Your task to perform on an android device: turn off notifications in google photos Image 0: 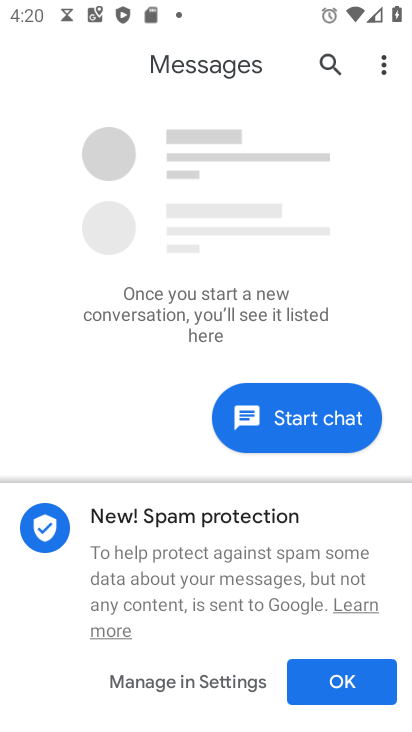
Step 0: press home button
Your task to perform on an android device: turn off notifications in google photos Image 1: 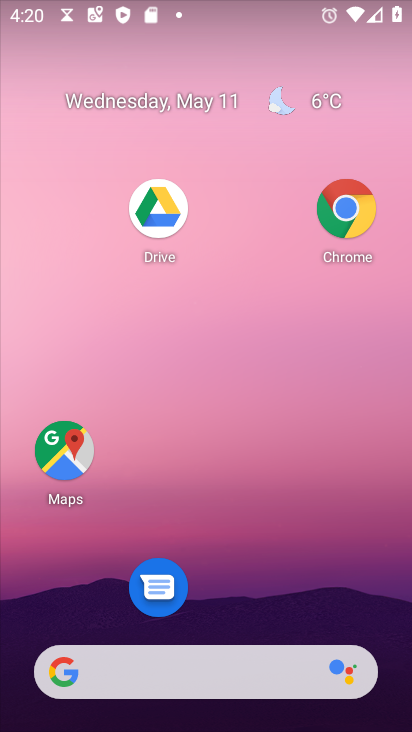
Step 1: drag from (292, 610) to (262, 339)
Your task to perform on an android device: turn off notifications in google photos Image 2: 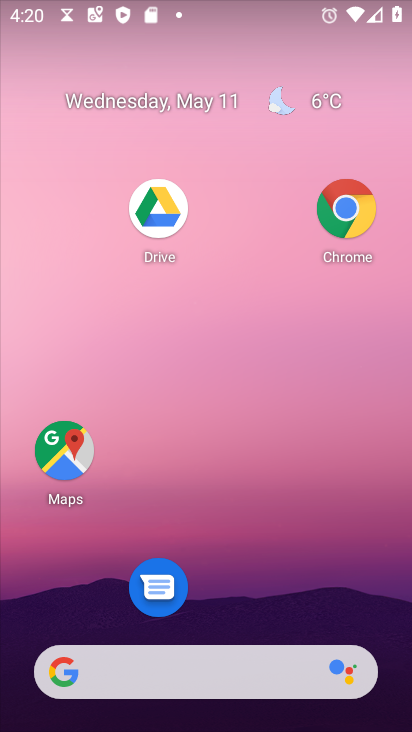
Step 2: drag from (237, 725) to (257, 173)
Your task to perform on an android device: turn off notifications in google photos Image 3: 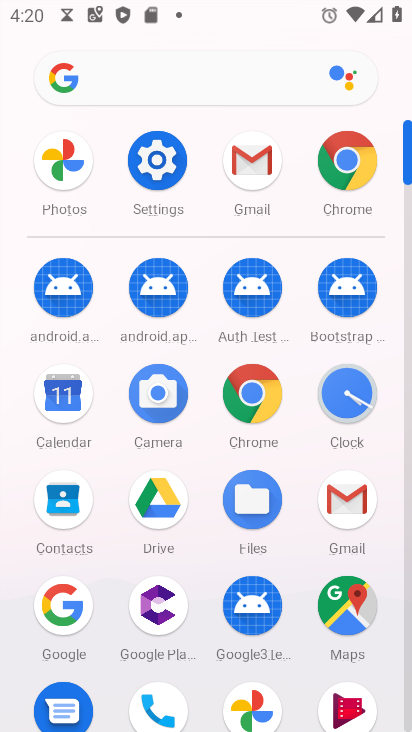
Step 3: click (256, 695)
Your task to perform on an android device: turn off notifications in google photos Image 4: 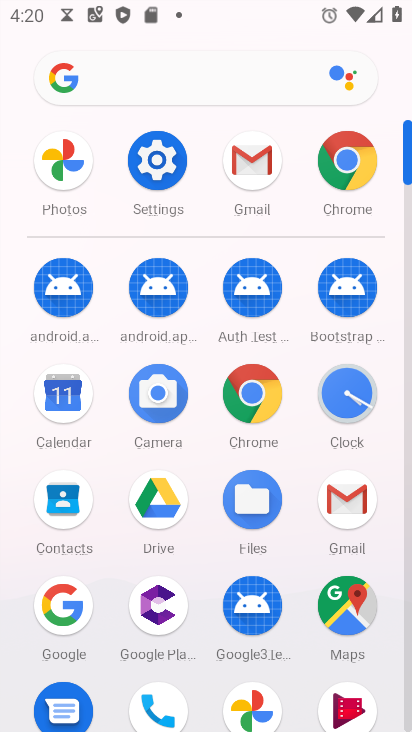
Step 4: click (260, 715)
Your task to perform on an android device: turn off notifications in google photos Image 5: 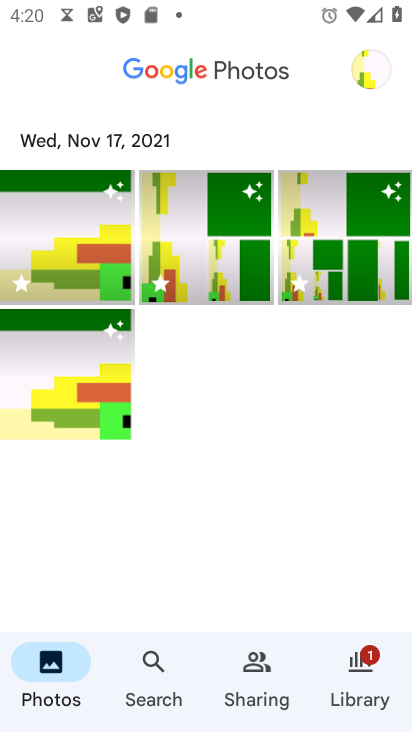
Step 5: click (374, 77)
Your task to perform on an android device: turn off notifications in google photos Image 6: 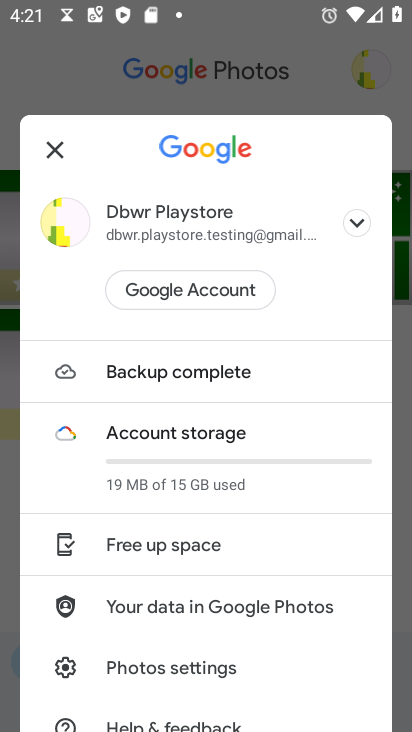
Step 6: click (189, 666)
Your task to perform on an android device: turn off notifications in google photos Image 7: 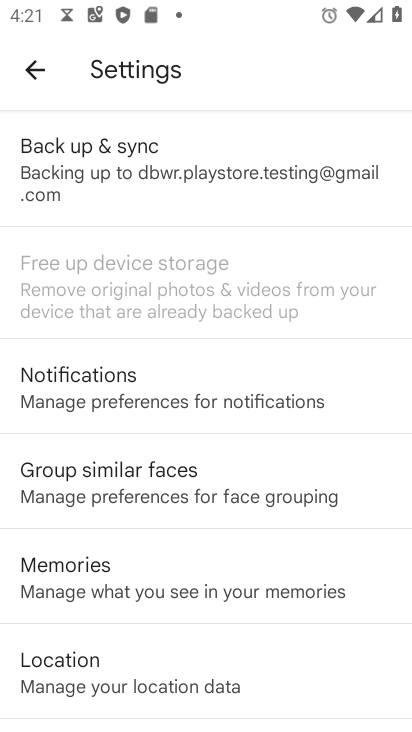
Step 7: click (128, 392)
Your task to perform on an android device: turn off notifications in google photos Image 8: 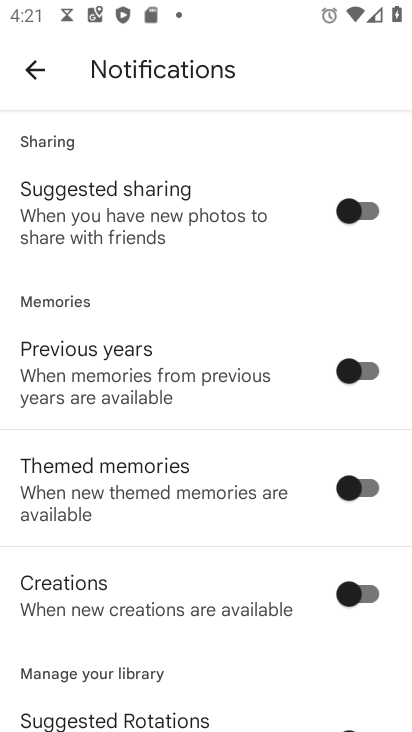
Step 8: drag from (226, 608) to (203, 223)
Your task to perform on an android device: turn off notifications in google photos Image 9: 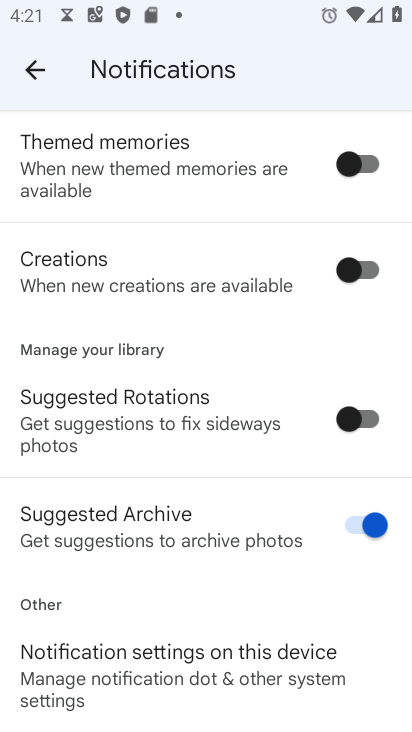
Step 9: drag from (205, 172) to (153, 709)
Your task to perform on an android device: turn off notifications in google photos Image 10: 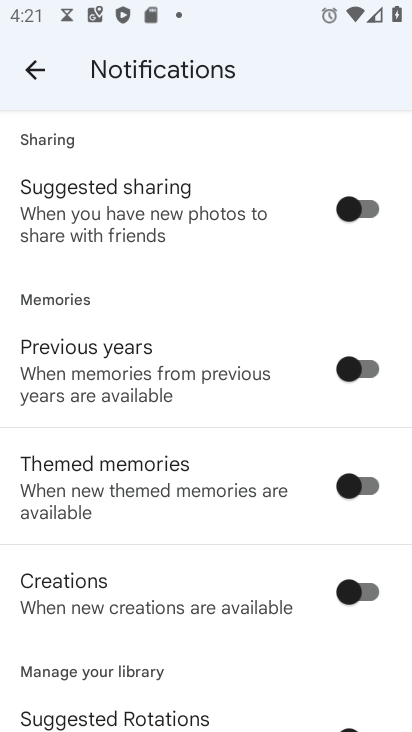
Step 10: click (366, 208)
Your task to perform on an android device: turn off notifications in google photos Image 11: 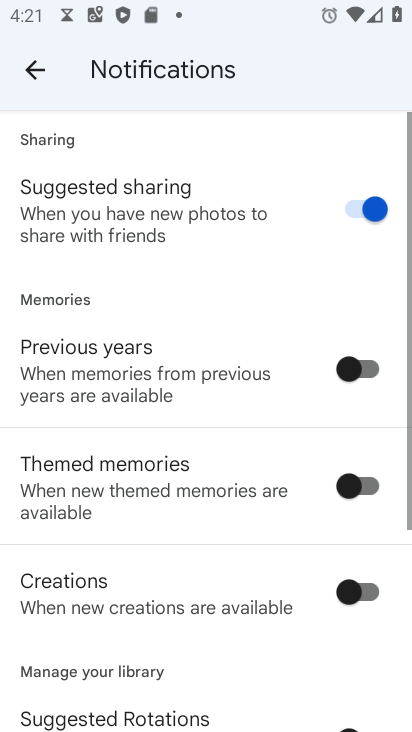
Step 11: click (366, 208)
Your task to perform on an android device: turn off notifications in google photos Image 12: 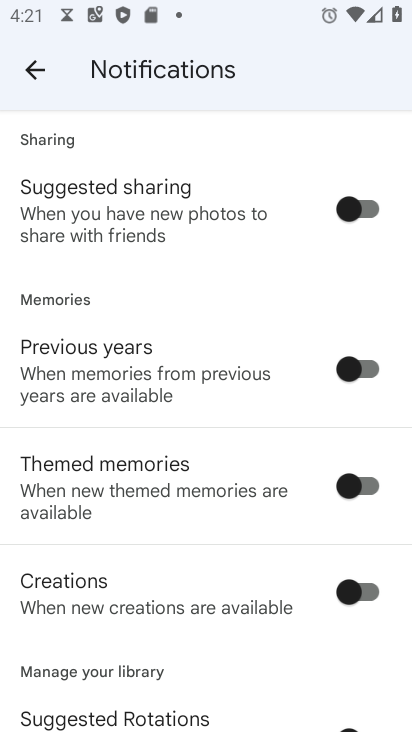
Step 12: task complete